Your task to perform on an android device: open a bookmark in the chrome app Image 0: 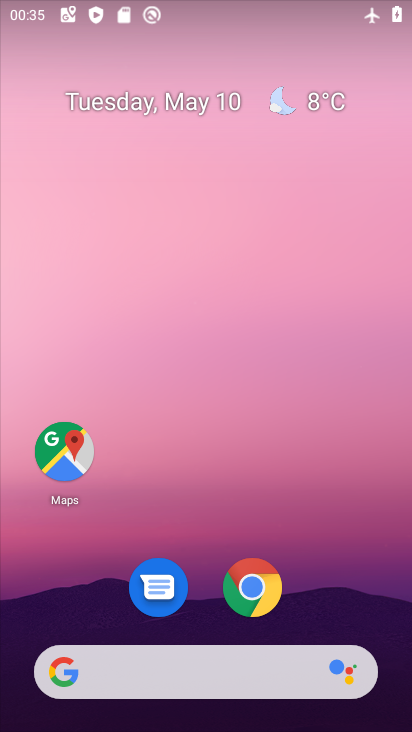
Step 0: click (255, 581)
Your task to perform on an android device: open a bookmark in the chrome app Image 1: 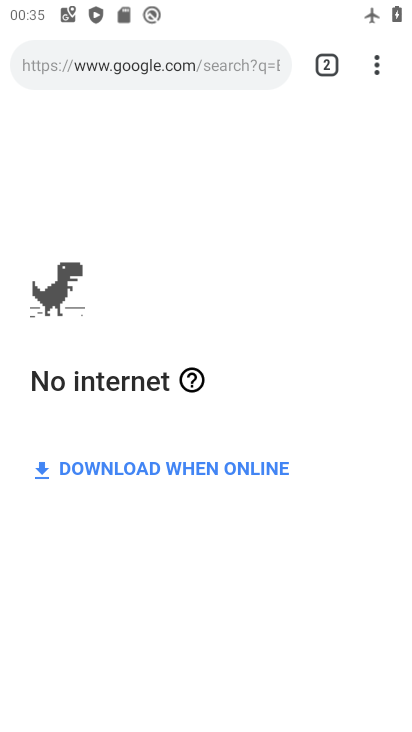
Step 1: press home button
Your task to perform on an android device: open a bookmark in the chrome app Image 2: 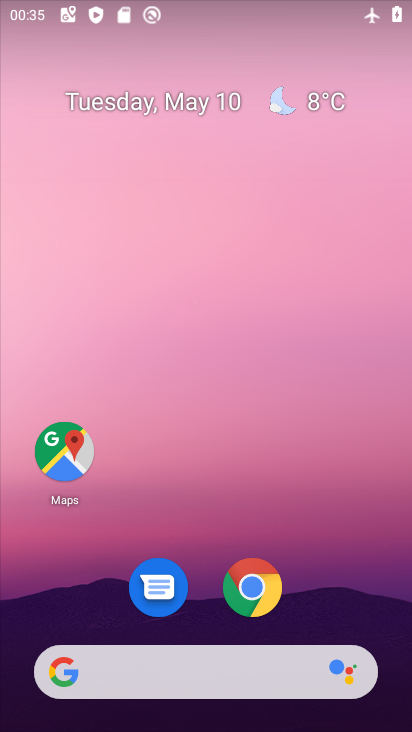
Step 2: drag from (393, 712) to (383, 330)
Your task to perform on an android device: open a bookmark in the chrome app Image 3: 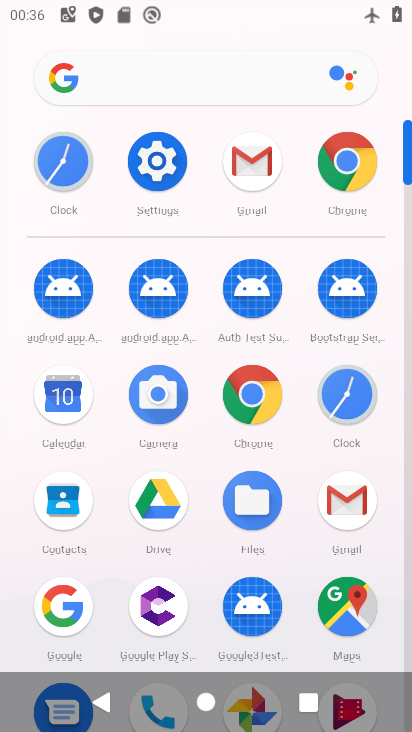
Step 3: click (154, 154)
Your task to perform on an android device: open a bookmark in the chrome app Image 4: 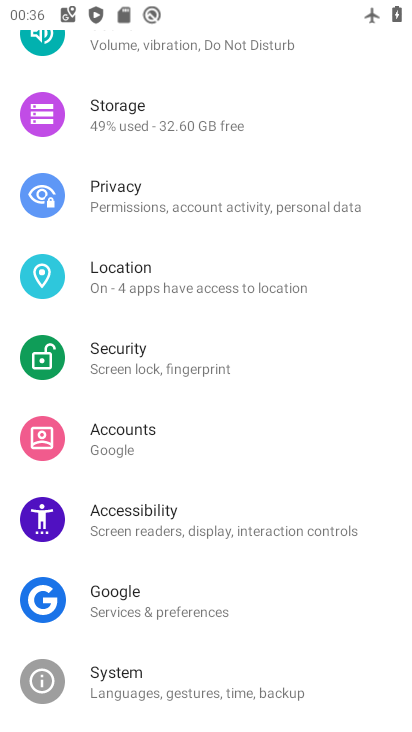
Step 4: drag from (359, 82) to (389, 412)
Your task to perform on an android device: open a bookmark in the chrome app Image 5: 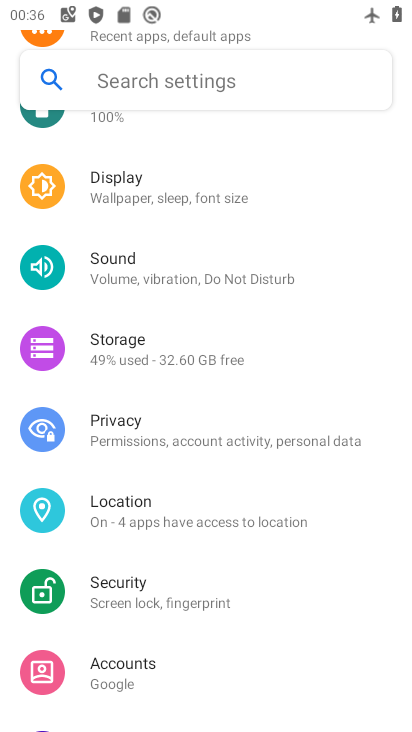
Step 5: drag from (363, 214) to (361, 480)
Your task to perform on an android device: open a bookmark in the chrome app Image 6: 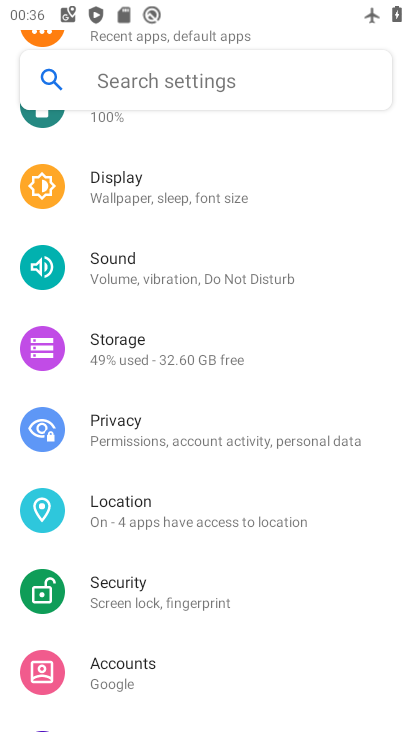
Step 6: drag from (364, 252) to (351, 547)
Your task to perform on an android device: open a bookmark in the chrome app Image 7: 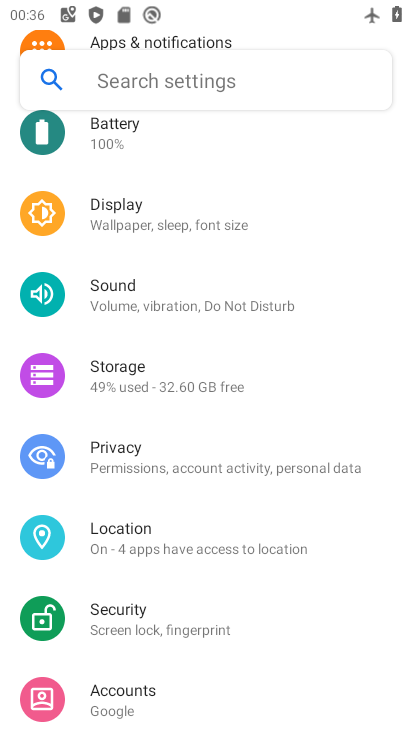
Step 7: drag from (358, 180) to (350, 560)
Your task to perform on an android device: open a bookmark in the chrome app Image 8: 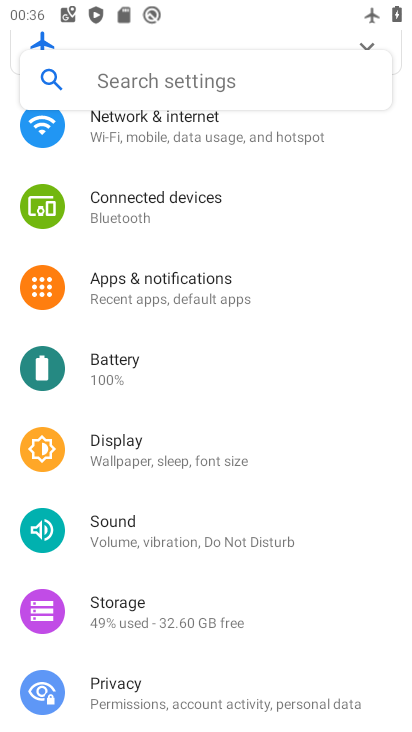
Step 8: drag from (378, 180) to (360, 406)
Your task to perform on an android device: open a bookmark in the chrome app Image 9: 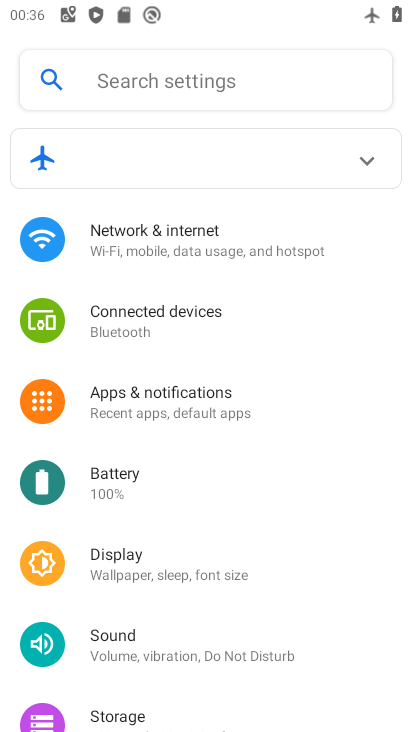
Step 9: click (176, 244)
Your task to perform on an android device: open a bookmark in the chrome app Image 10: 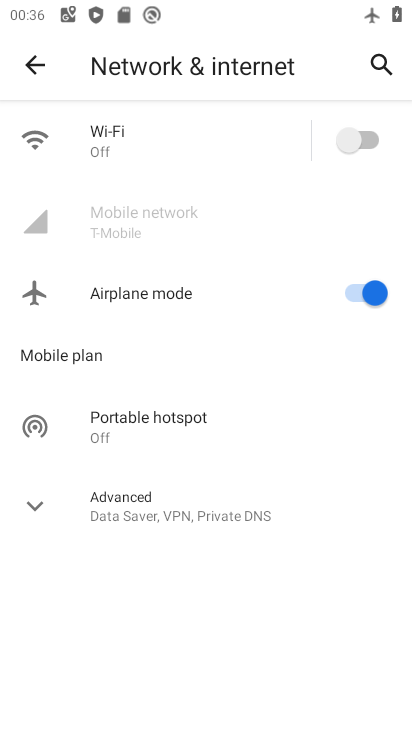
Step 10: press back button
Your task to perform on an android device: open a bookmark in the chrome app Image 11: 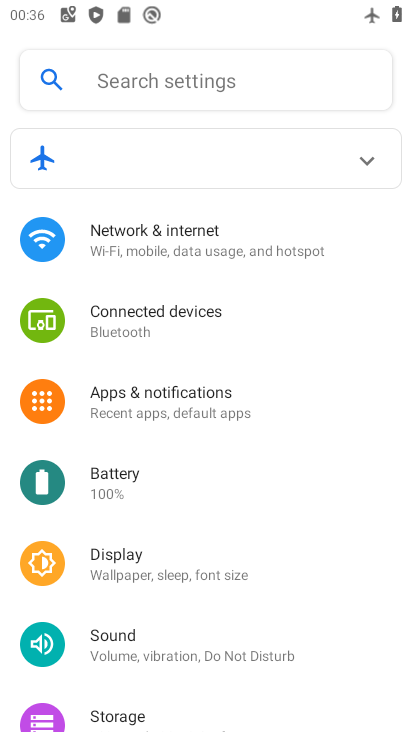
Step 11: click (136, 229)
Your task to perform on an android device: open a bookmark in the chrome app Image 12: 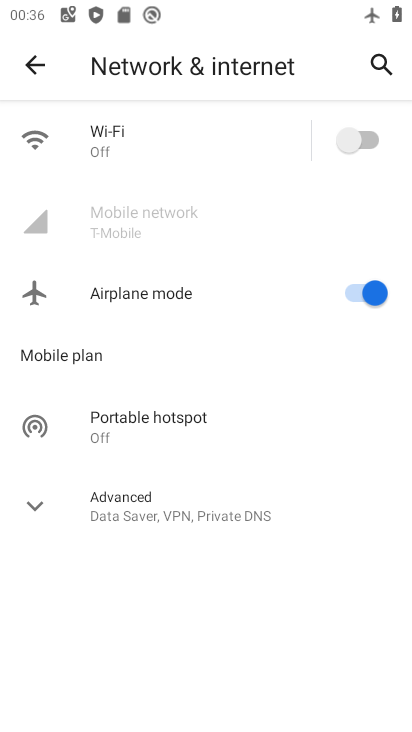
Step 12: click (371, 133)
Your task to perform on an android device: open a bookmark in the chrome app Image 13: 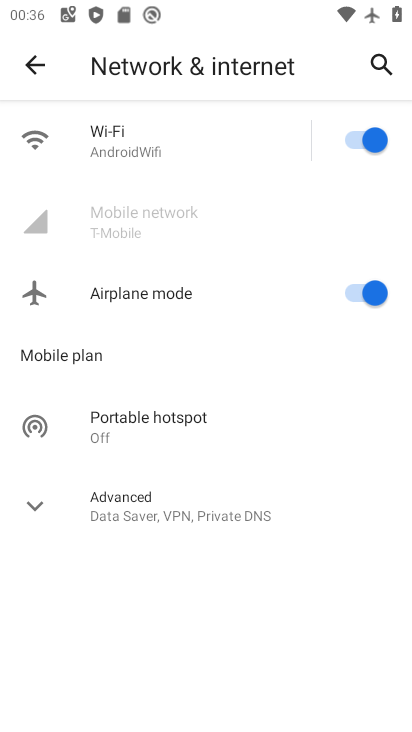
Step 13: click (349, 298)
Your task to perform on an android device: open a bookmark in the chrome app Image 14: 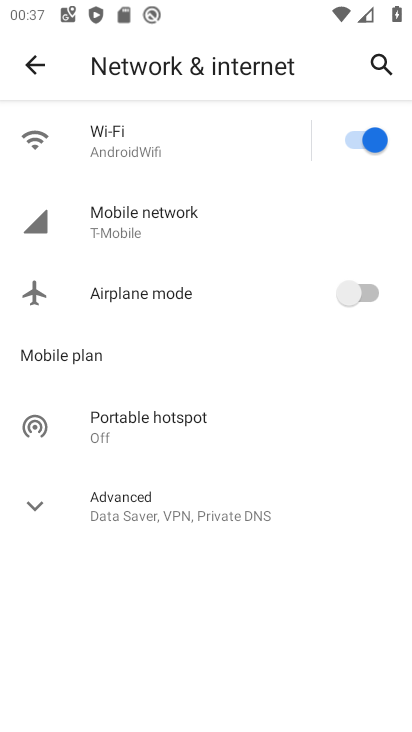
Step 14: click (30, 72)
Your task to perform on an android device: open a bookmark in the chrome app Image 15: 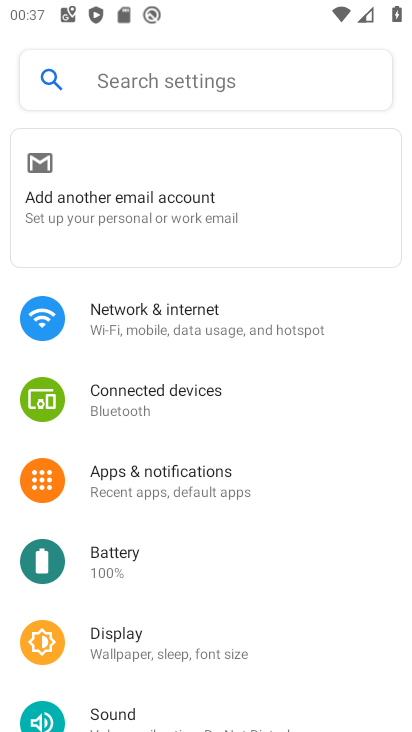
Step 15: press home button
Your task to perform on an android device: open a bookmark in the chrome app Image 16: 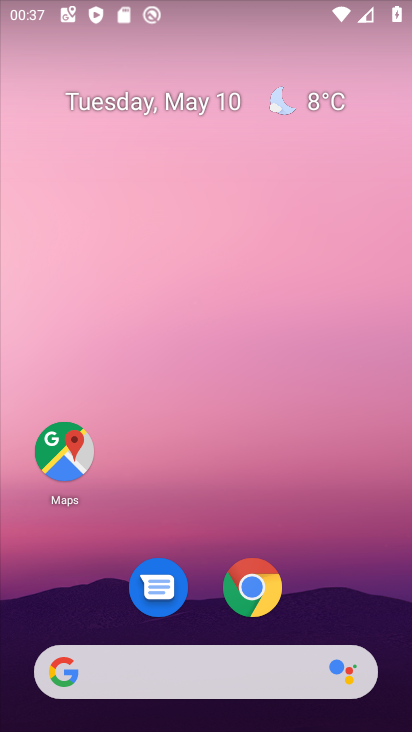
Step 16: click (266, 582)
Your task to perform on an android device: open a bookmark in the chrome app Image 17: 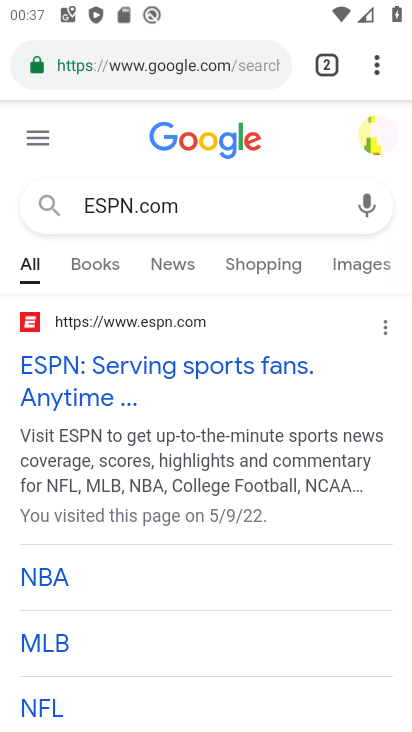
Step 17: click (374, 69)
Your task to perform on an android device: open a bookmark in the chrome app Image 18: 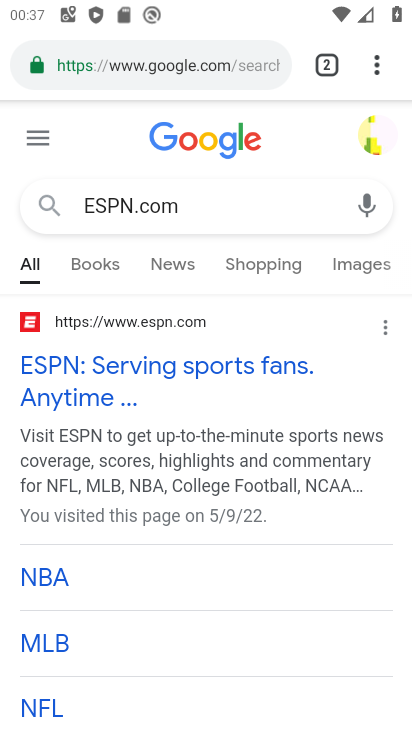
Step 18: click (383, 60)
Your task to perform on an android device: open a bookmark in the chrome app Image 19: 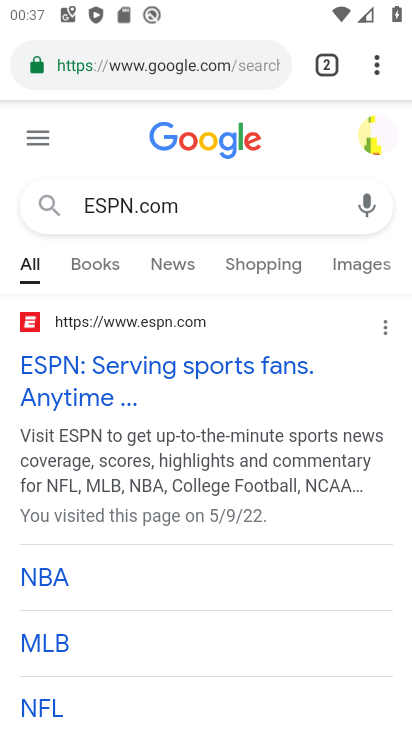
Step 19: click (375, 62)
Your task to perform on an android device: open a bookmark in the chrome app Image 20: 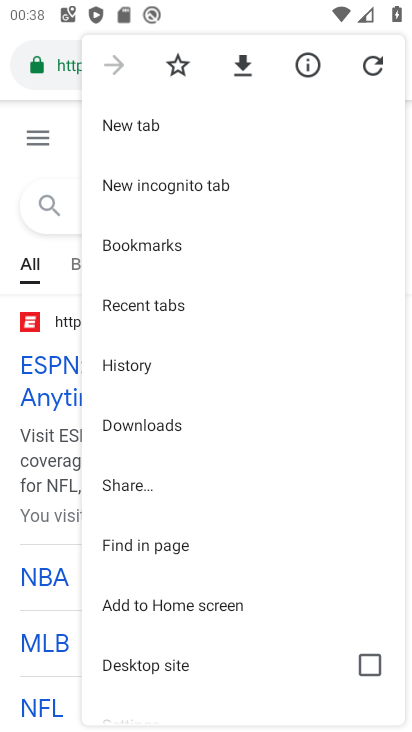
Step 20: click (154, 250)
Your task to perform on an android device: open a bookmark in the chrome app Image 21: 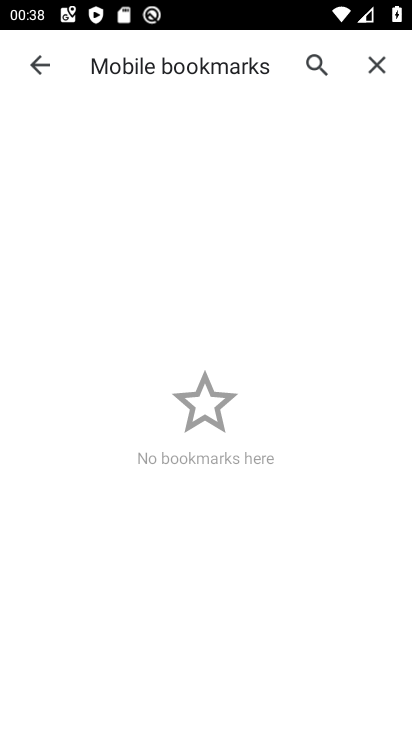
Step 21: task complete